Your task to perform on an android device: turn on showing notifications on the lock screen Image 0: 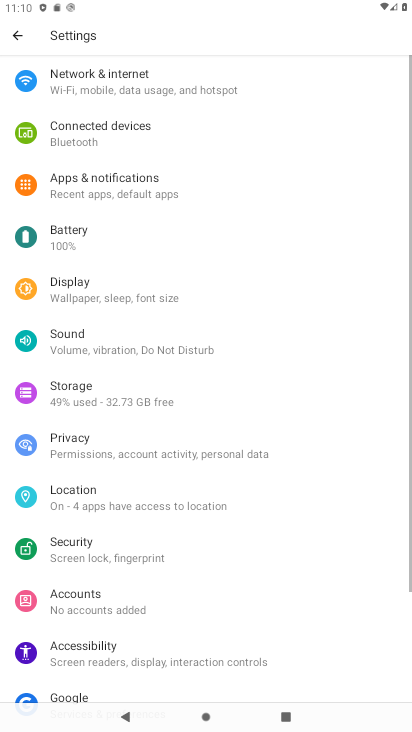
Step 0: press home button
Your task to perform on an android device: turn on showing notifications on the lock screen Image 1: 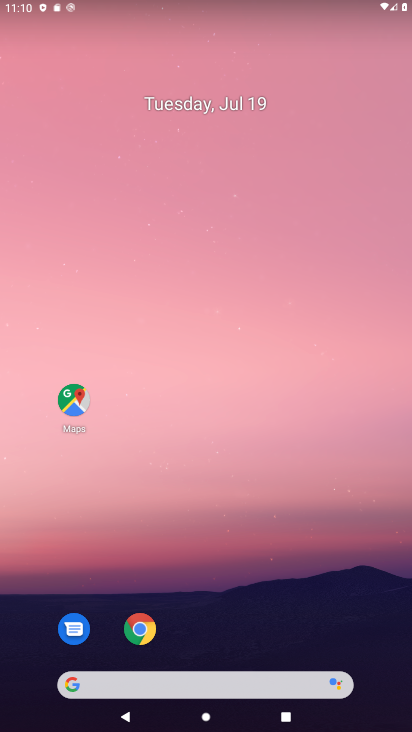
Step 1: drag from (342, 619) to (346, 183)
Your task to perform on an android device: turn on showing notifications on the lock screen Image 2: 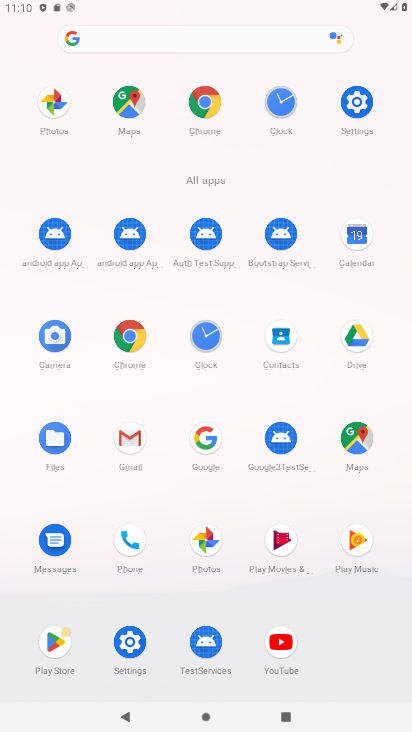
Step 2: click (358, 111)
Your task to perform on an android device: turn on showing notifications on the lock screen Image 3: 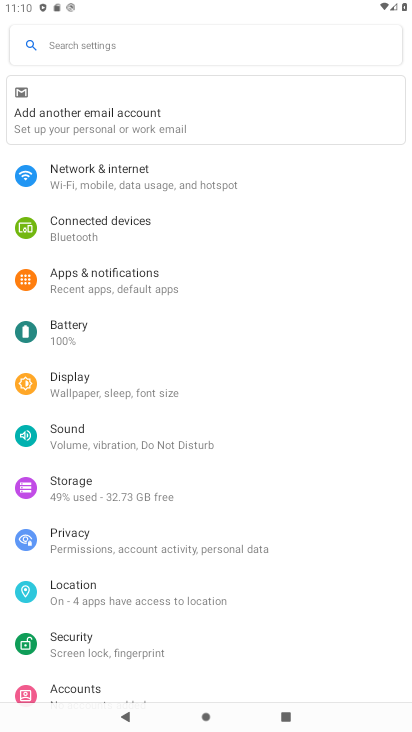
Step 3: drag from (358, 553) to (374, 456)
Your task to perform on an android device: turn on showing notifications on the lock screen Image 4: 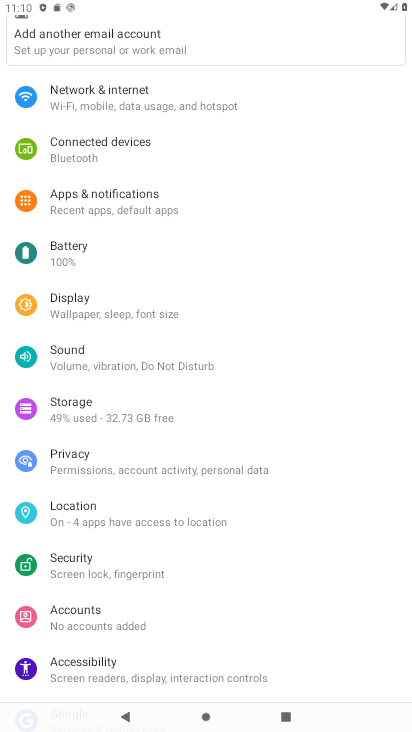
Step 4: drag from (358, 569) to (359, 473)
Your task to perform on an android device: turn on showing notifications on the lock screen Image 5: 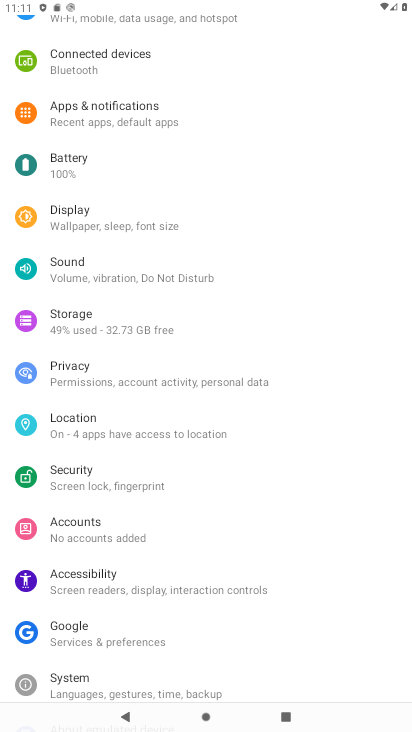
Step 5: drag from (349, 570) to (348, 489)
Your task to perform on an android device: turn on showing notifications on the lock screen Image 6: 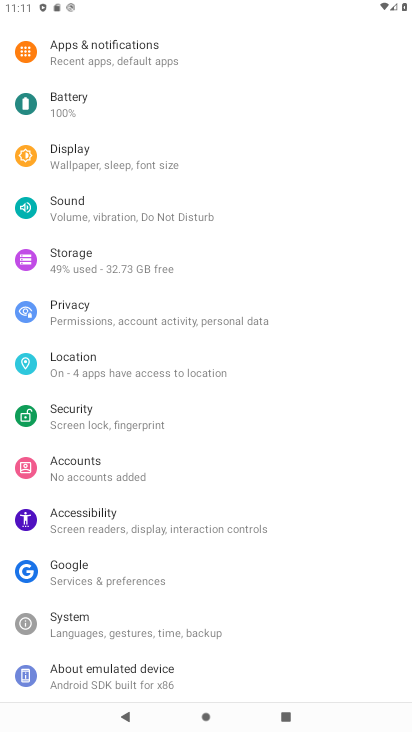
Step 6: drag from (342, 347) to (342, 449)
Your task to perform on an android device: turn on showing notifications on the lock screen Image 7: 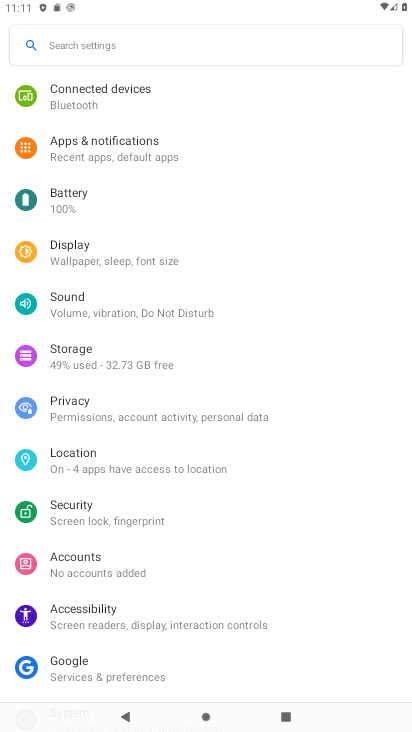
Step 7: drag from (341, 337) to (347, 407)
Your task to perform on an android device: turn on showing notifications on the lock screen Image 8: 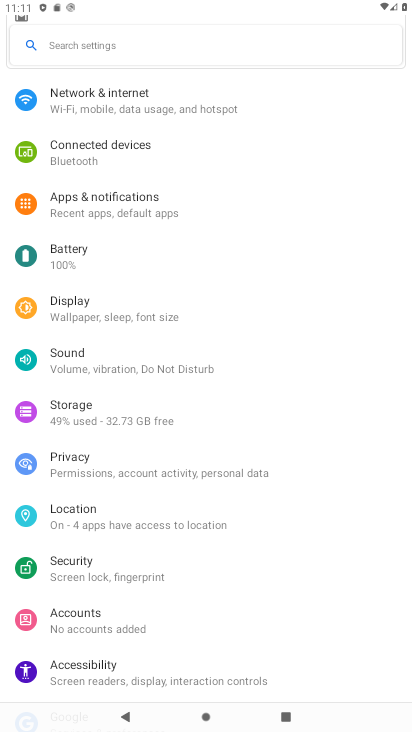
Step 8: drag from (332, 301) to (335, 397)
Your task to perform on an android device: turn on showing notifications on the lock screen Image 9: 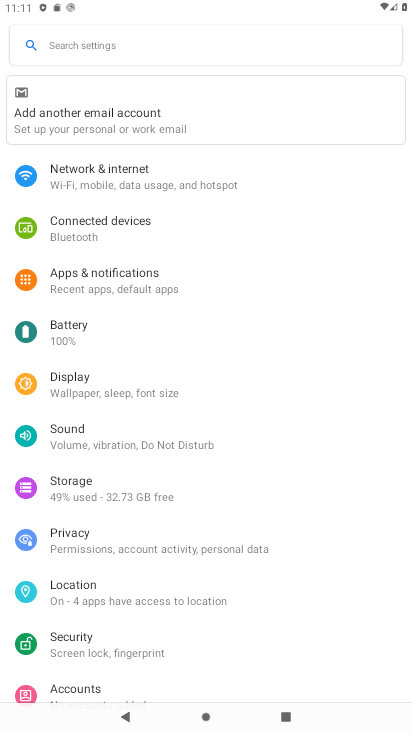
Step 9: click (205, 297)
Your task to perform on an android device: turn on showing notifications on the lock screen Image 10: 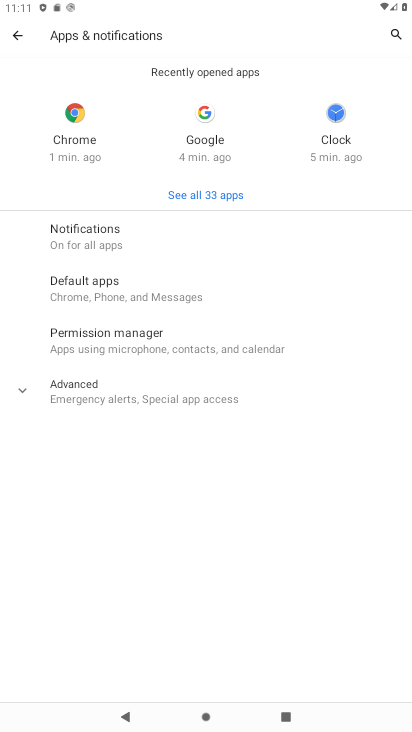
Step 10: click (149, 242)
Your task to perform on an android device: turn on showing notifications on the lock screen Image 11: 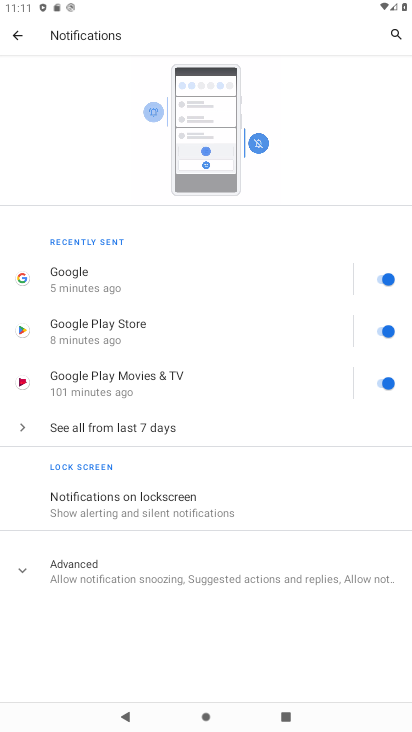
Step 11: click (288, 501)
Your task to perform on an android device: turn on showing notifications on the lock screen Image 12: 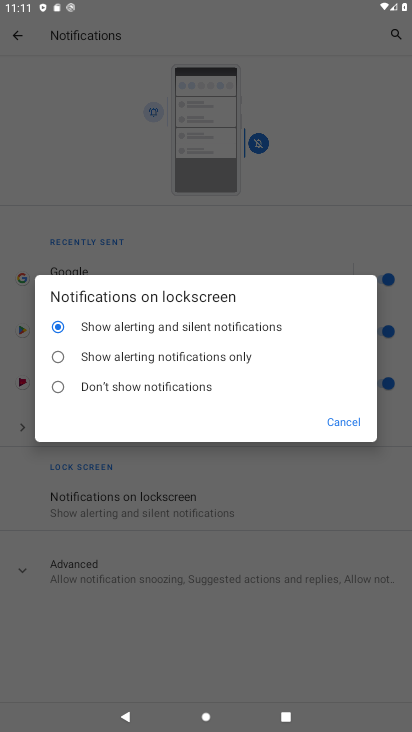
Step 12: task complete